Your task to perform on an android device: toggle notifications settings in the gmail app Image 0: 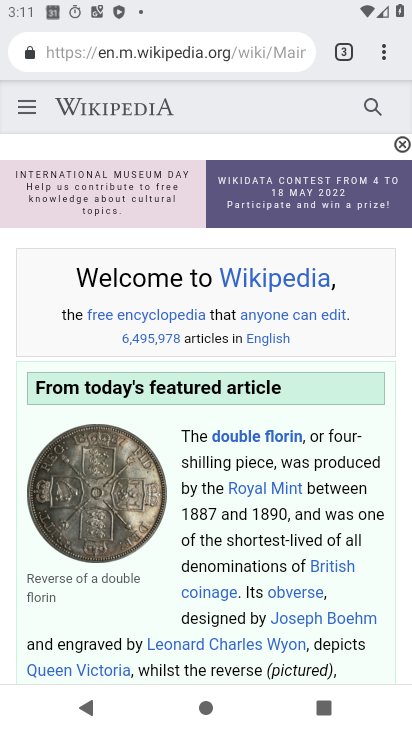
Step 0: press home button
Your task to perform on an android device: toggle notifications settings in the gmail app Image 1: 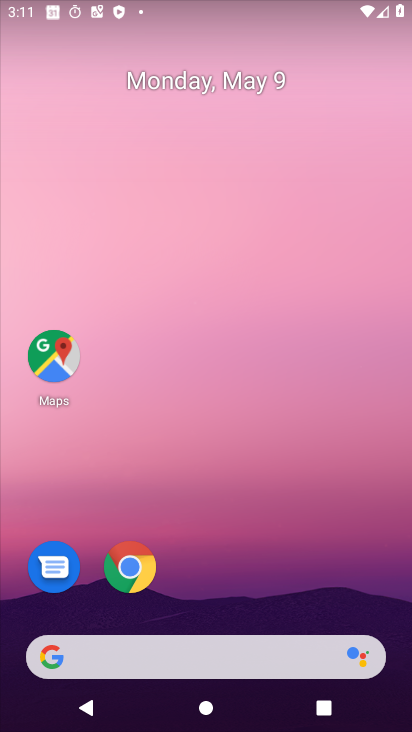
Step 1: drag from (264, 475) to (260, 7)
Your task to perform on an android device: toggle notifications settings in the gmail app Image 2: 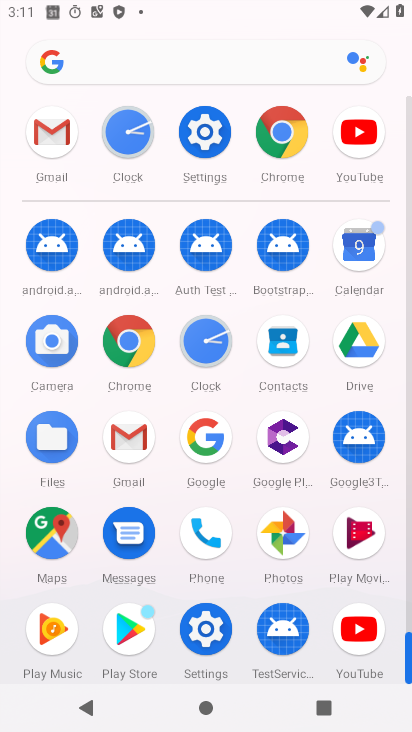
Step 2: click (43, 139)
Your task to perform on an android device: toggle notifications settings in the gmail app Image 3: 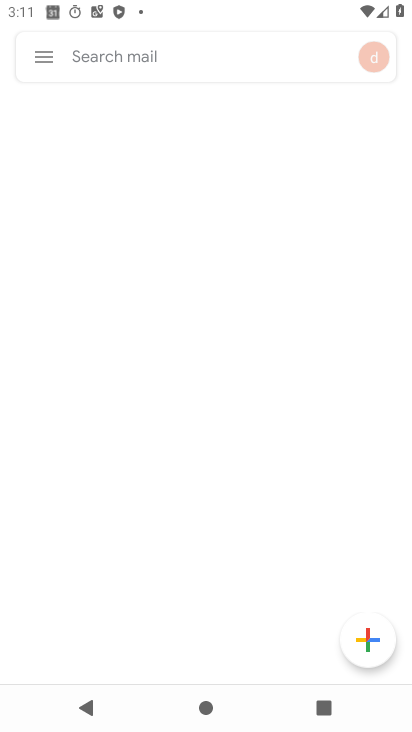
Step 3: click (40, 59)
Your task to perform on an android device: toggle notifications settings in the gmail app Image 4: 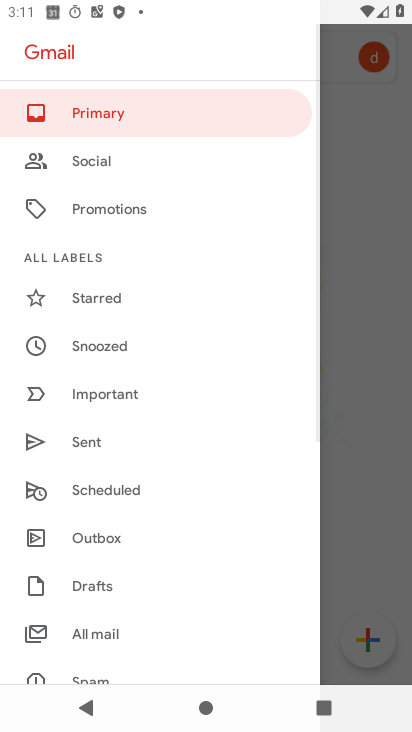
Step 4: drag from (143, 643) to (163, 243)
Your task to perform on an android device: toggle notifications settings in the gmail app Image 5: 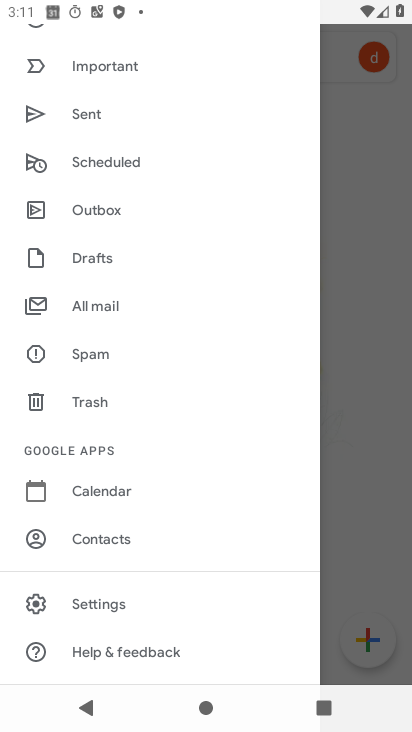
Step 5: click (118, 605)
Your task to perform on an android device: toggle notifications settings in the gmail app Image 6: 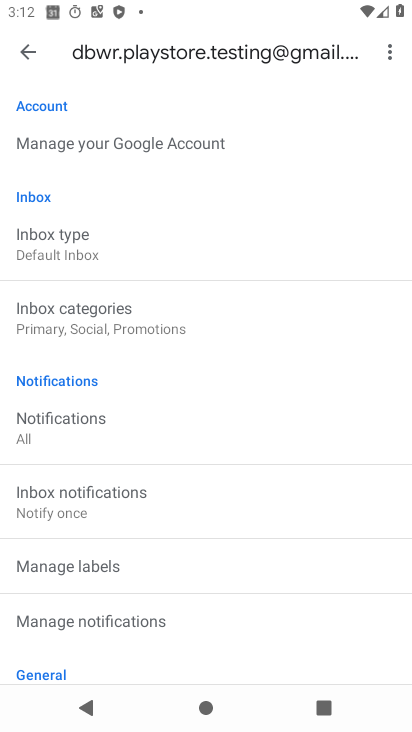
Step 6: click (109, 617)
Your task to perform on an android device: toggle notifications settings in the gmail app Image 7: 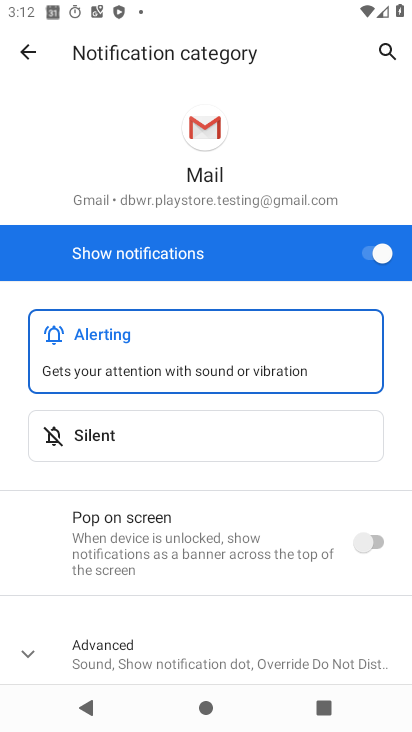
Step 7: click (368, 256)
Your task to perform on an android device: toggle notifications settings in the gmail app Image 8: 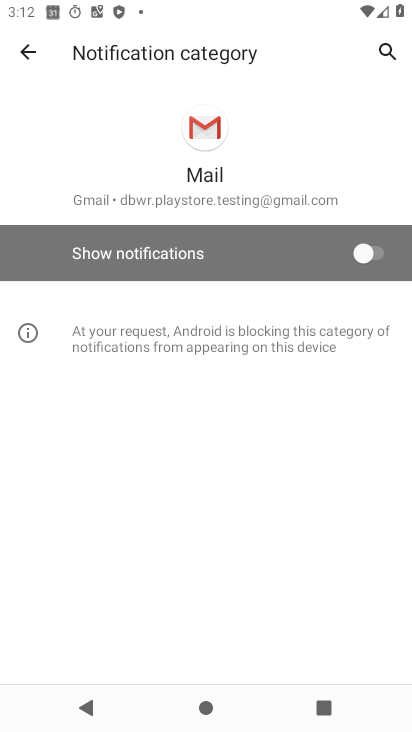
Step 8: task complete